Your task to perform on an android device: What's the weather going to be tomorrow? Image 0: 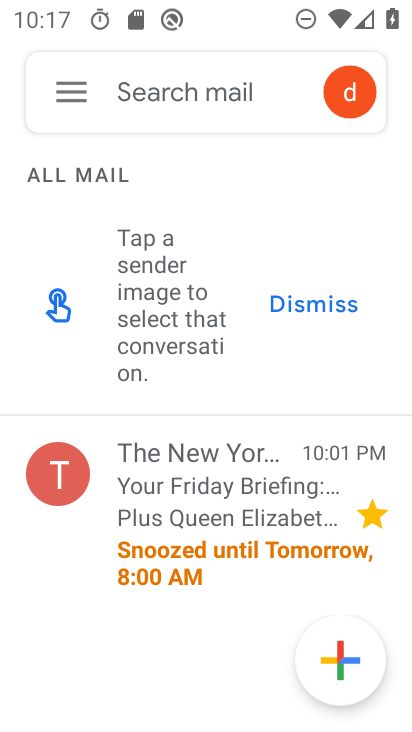
Step 0: press home button
Your task to perform on an android device: What's the weather going to be tomorrow? Image 1: 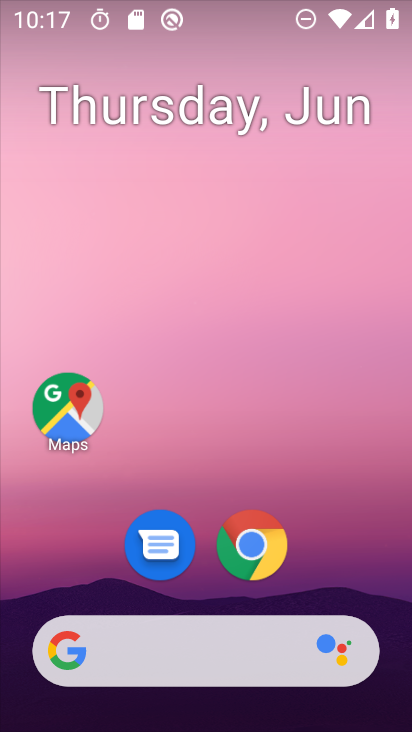
Step 1: click (193, 649)
Your task to perform on an android device: What's the weather going to be tomorrow? Image 2: 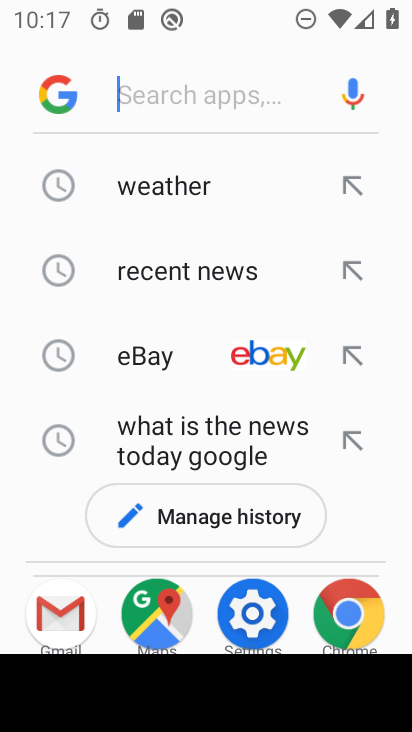
Step 2: click (191, 194)
Your task to perform on an android device: What's the weather going to be tomorrow? Image 3: 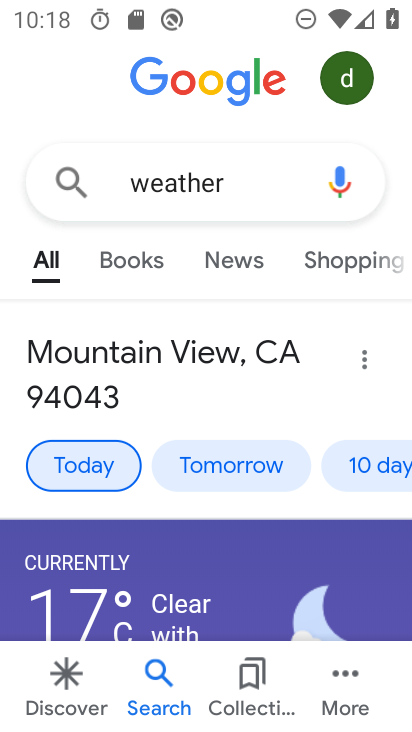
Step 3: click (211, 471)
Your task to perform on an android device: What's the weather going to be tomorrow? Image 4: 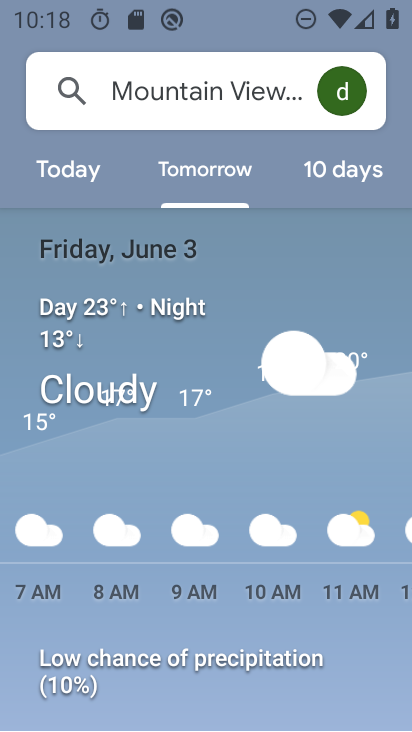
Step 4: task complete